Your task to perform on an android device: Open network settings Image 0: 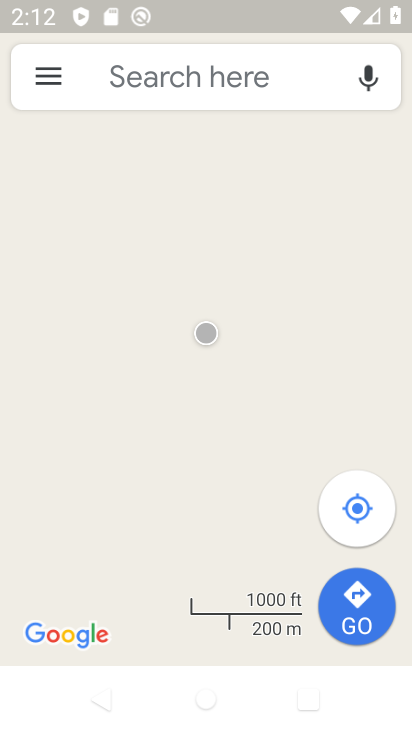
Step 0: press home button
Your task to perform on an android device: Open network settings Image 1: 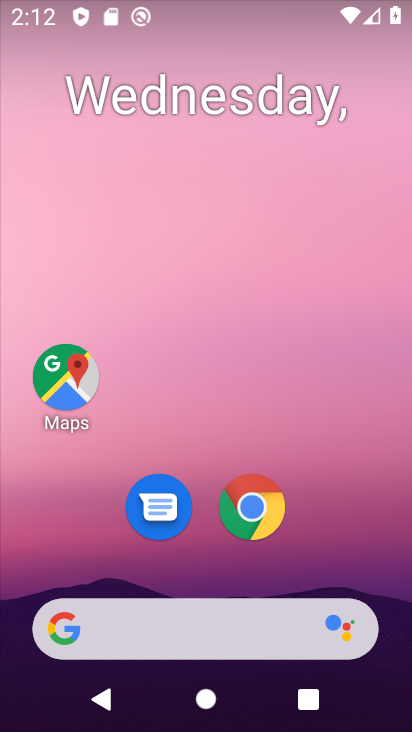
Step 1: drag from (375, 472) to (407, 49)
Your task to perform on an android device: Open network settings Image 2: 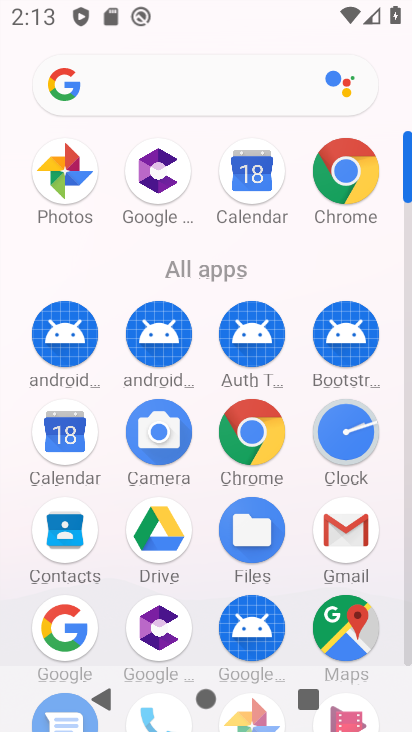
Step 2: drag from (296, 572) to (375, 85)
Your task to perform on an android device: Open network settings Image 3: 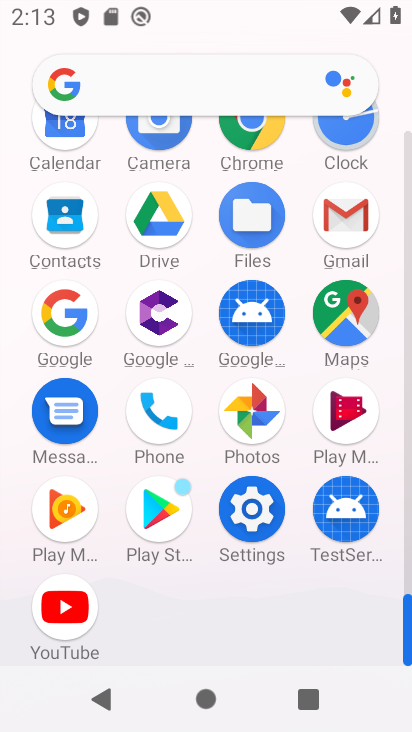
Step 3: click (247, 508)
Your task to perform on an android device: Open network settings Image 4: 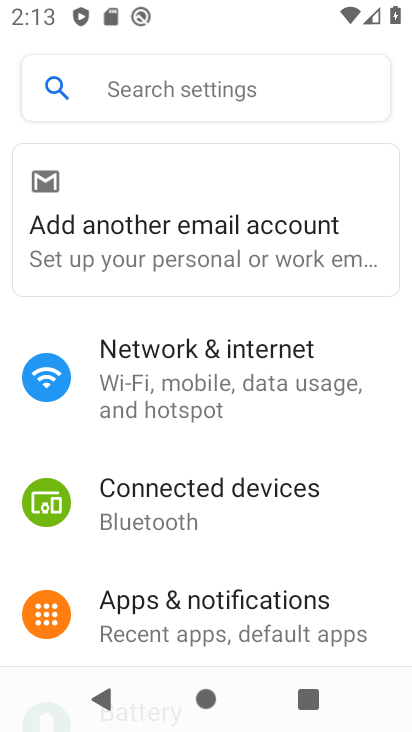
Step 4: click (214, 387)
Your task to perform on an android device: Open network settings Image 5: 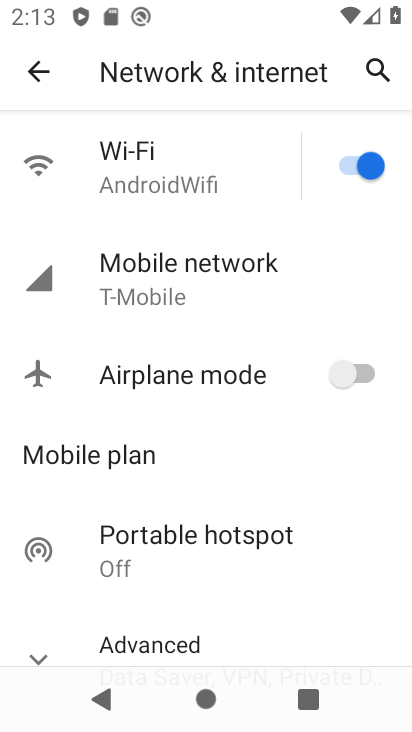
Step 5: task complete